Your task to perform on an android device: Open notification settings Image 0: 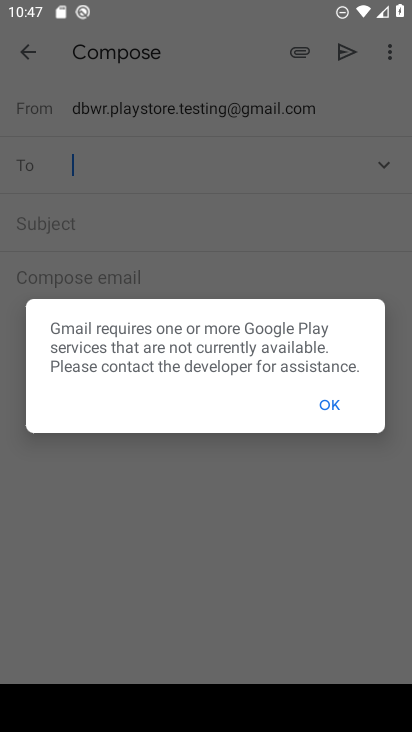
Step 0: press home button
Your task to perform on an android device: Open notification settings Image 1: 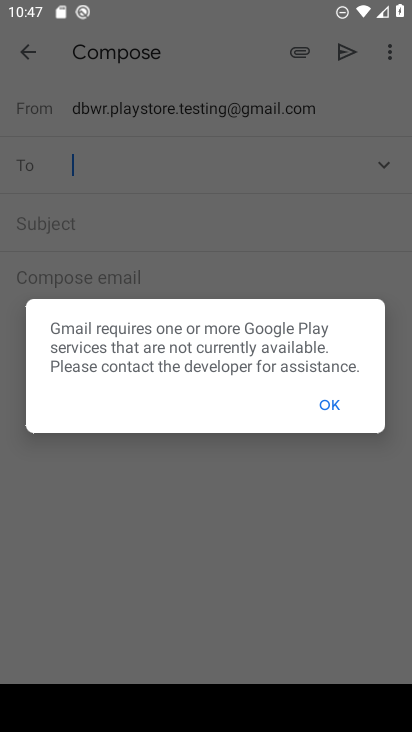
Step 1: press home button
Your task to perform on an android device: Open notification settings Image 2: 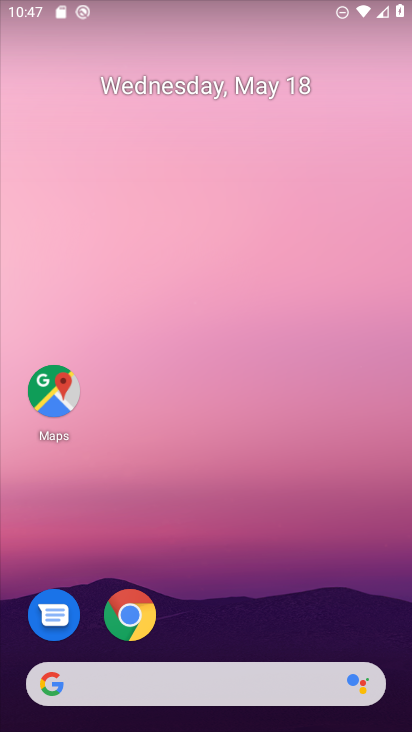
Step 2: drag from (251, 614) to (297, 1)
Your task to perform on an android device: Open notification settings Image 3: 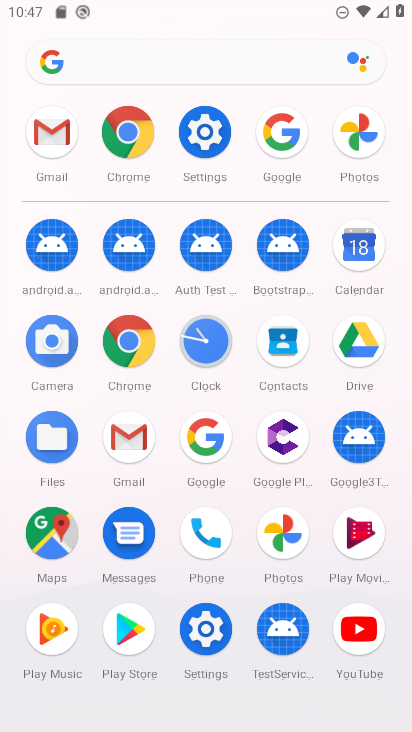
Step 3: click (206, 137)
Your task to perform on an android device: Open notification settings Image 4: 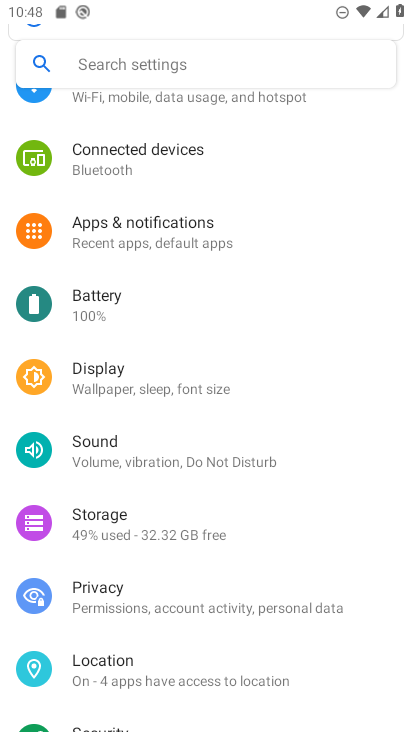
Step 4: click (144, 238)
Your task to perform on an android device: Open notification settings Image 5: 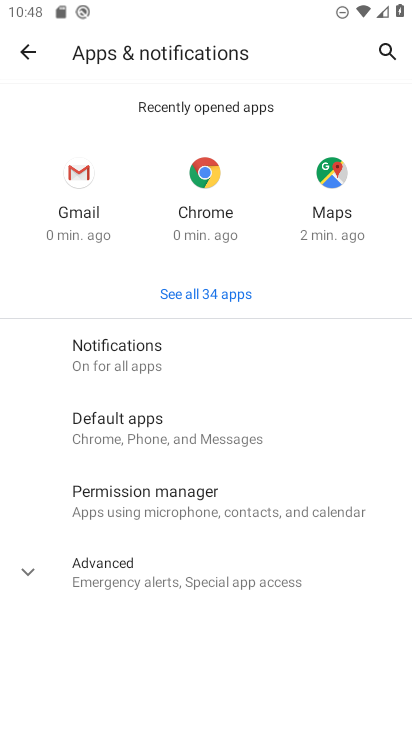
Step 5: click (112, 355)
Your task to perform on an android device: Open notification settings Image 6: 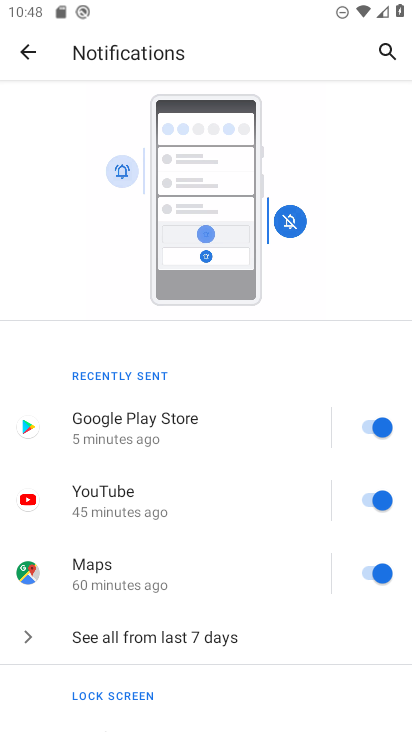
Step 6: task complete